Your task to perform on an android device: open sync settings in chrome Image 0: 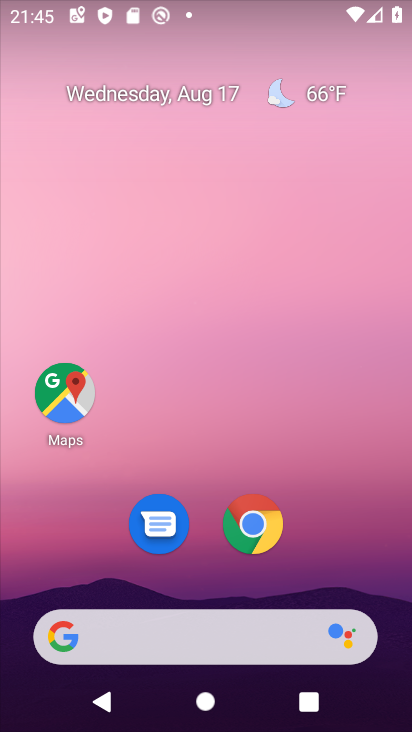
Step 0: click (277, 517)
Your task to perform on an android device: open sync settings in chrome Image 1: 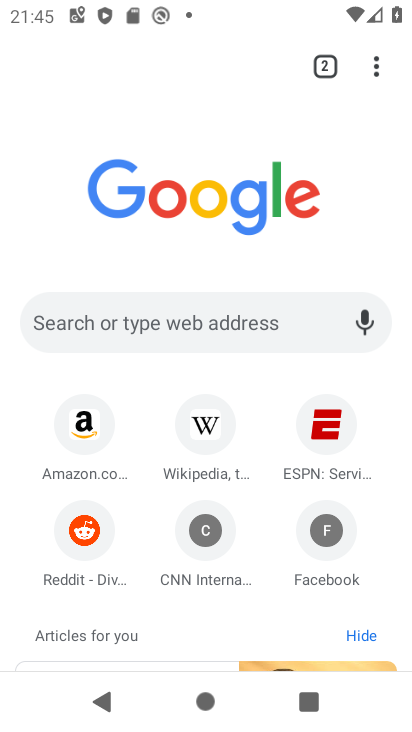
Step 1: click (374, 63)
Your task to perform on an android device: open sync settings in chrome Image 2: 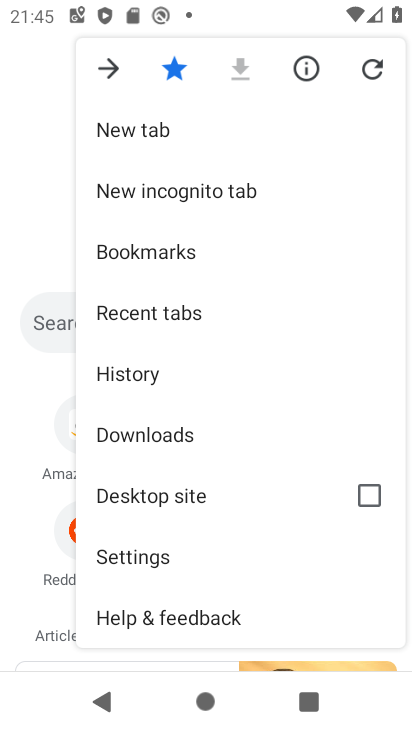
Step 2: click (173, 557)
Your task to perform on an android device: open sync settings in chrome Image 3: 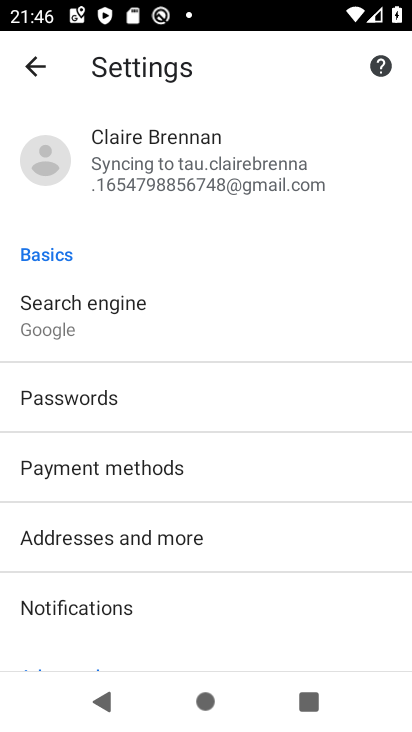
Step 3: click (210, 159)
Your task to perform on an android device: open sync settings in chrome Image 4: 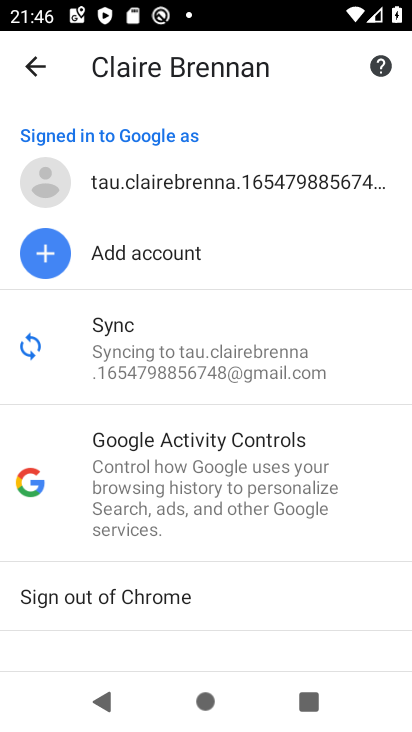
Step 4: click (166, 359)
Your task to perform on an android device: open sync settings in chrome Image 5: 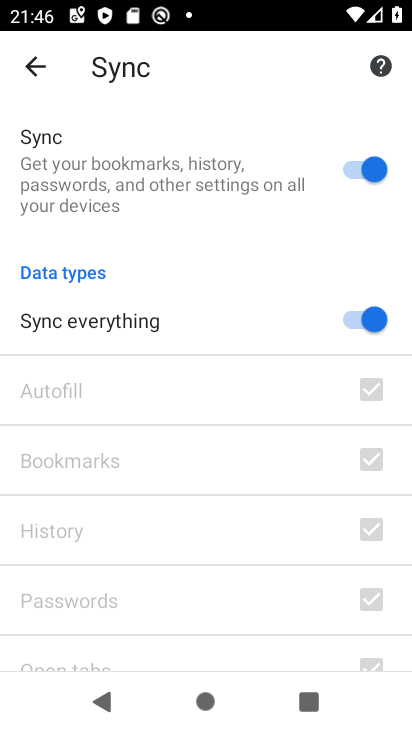
Step 5: task complete